Your task to perform on an android device: all mails in gmail Image 0: 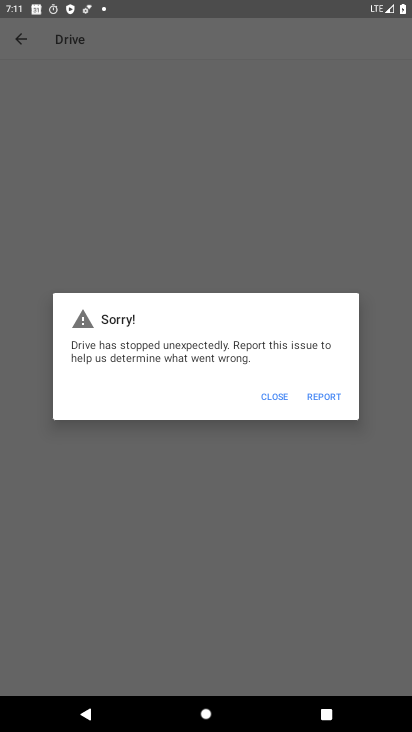
Step 0: press home button
Your task to perform on an android device: all mails in gmail Image 1: 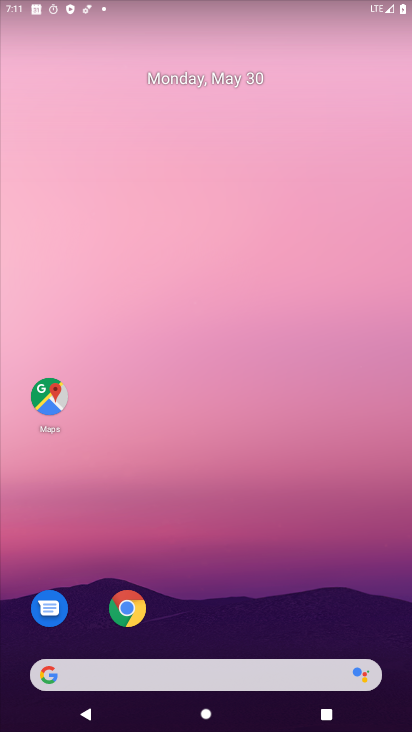
Step 1: drag from (226, 589) to (283, 274)
Your task to perform on an android device: all mails in gmail Image 2: 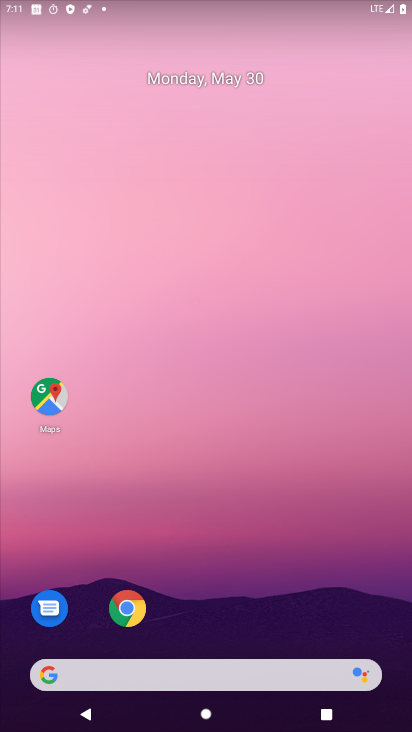
Step 2: drag from (219, 516) to (319, 45)
Your task to perform on an android device: all mails in gmail Image 3: 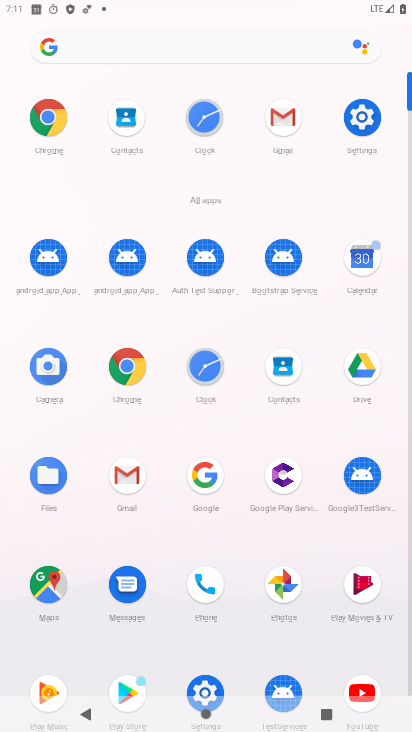
Step 3: click (289, 116)
Your task to perform on an android device: all mails in gmail Image 4: 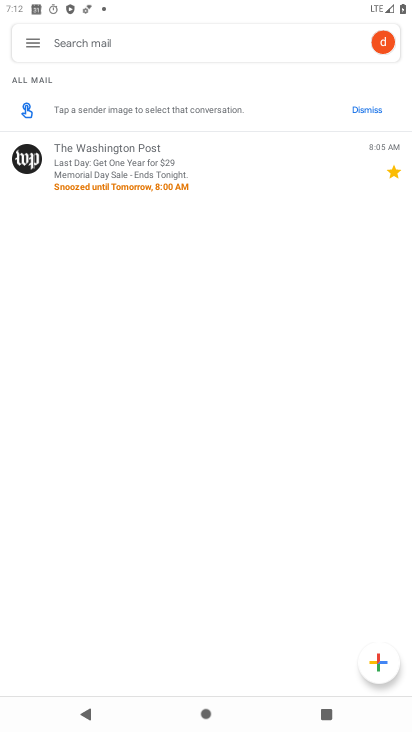
Step 4: task complete